Your task to perform on an android device: Set the phone to "Do not disturb". Image 0: 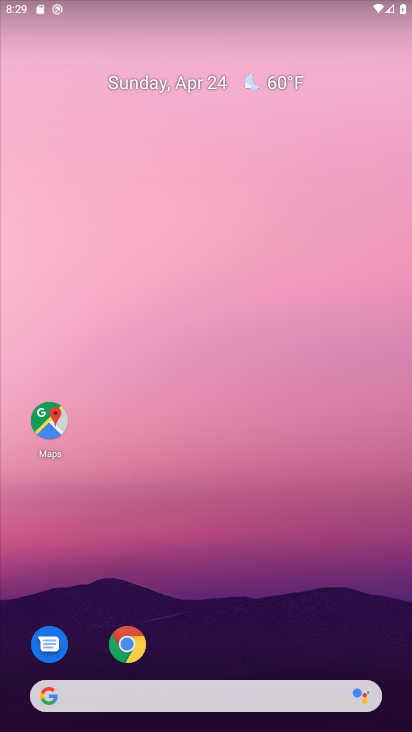
Step 0: drag from (204, 6) to (143, 604)
Your task to perform on an android device: Set the phone to "Do not disturb". Image 1: 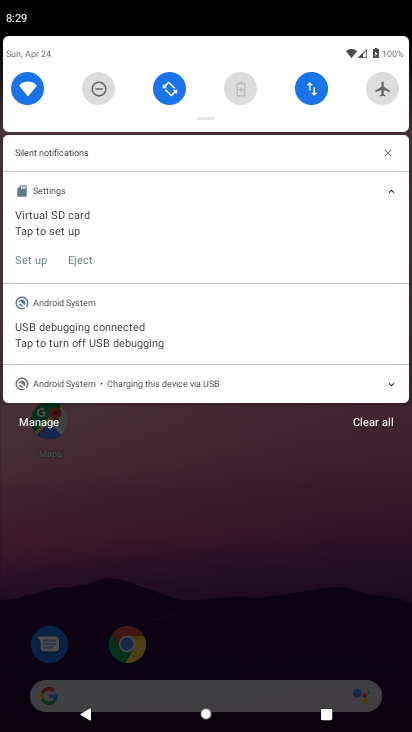
Step 1: click (99, 88)
Your task to perform on an android device: Set the phone to "Do not disturb". Image 2: 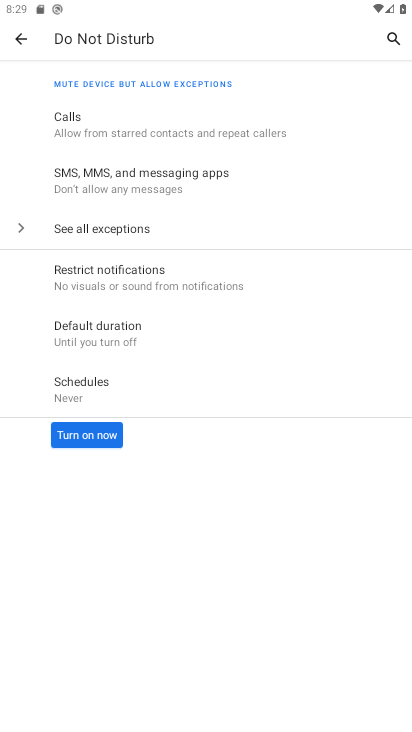
Step 2: drag from (130, 5) to (95, 636)
Your task to perform on an android device: Set the phone to "Do not disturb". Image 3: 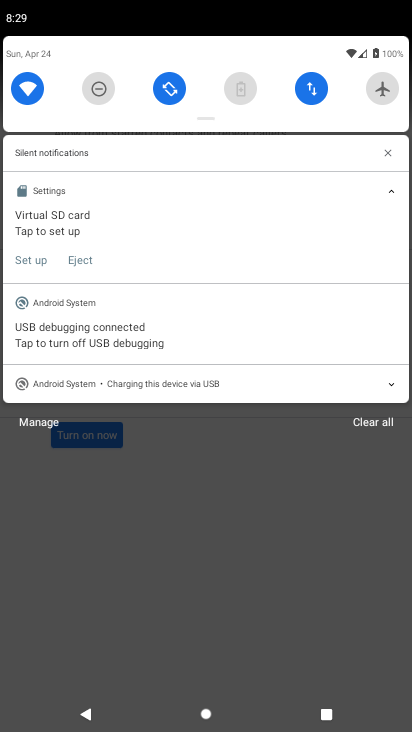
Step 3: click (102, 83)
Your task to perform on an android device: Set the phone to "Do not disturb". Image 4: 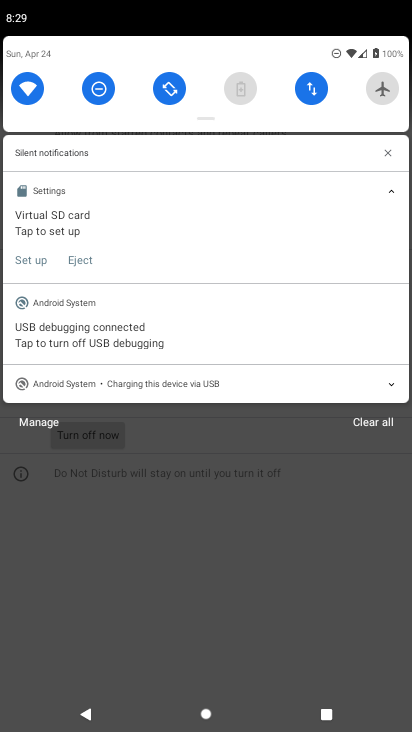
Step 4: task complete